Your task to perform on an android device: change the clock display to show seconds Image 0: 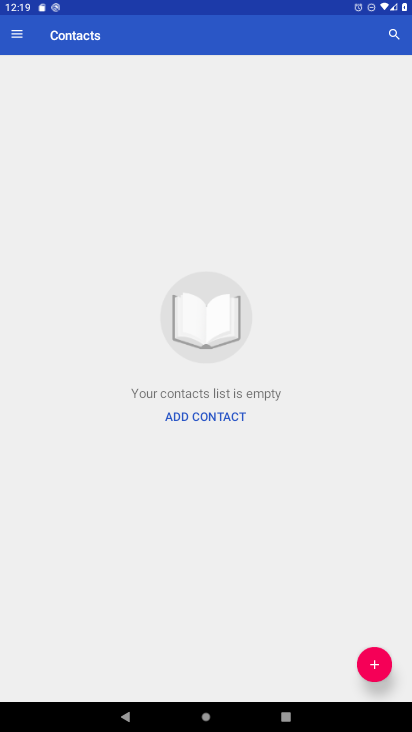
Step 0: press home button
Your task to perform on an android device: change the clock display to show seconds Image 1: 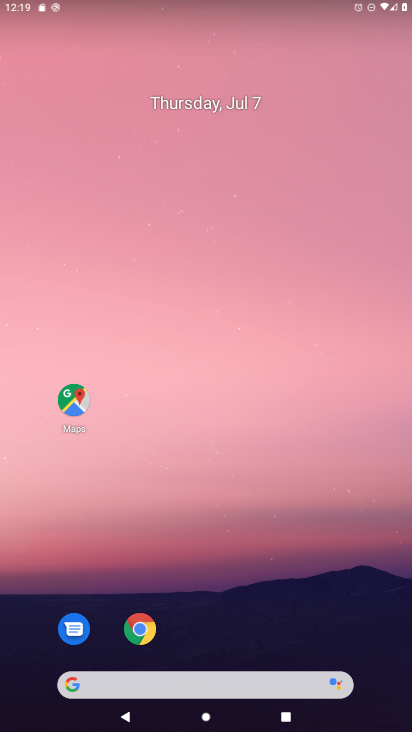
Step 1: drag from (211, 629) to (211, 169)
Your task to perform on an android device: change the clock display to show seconds Image 2: 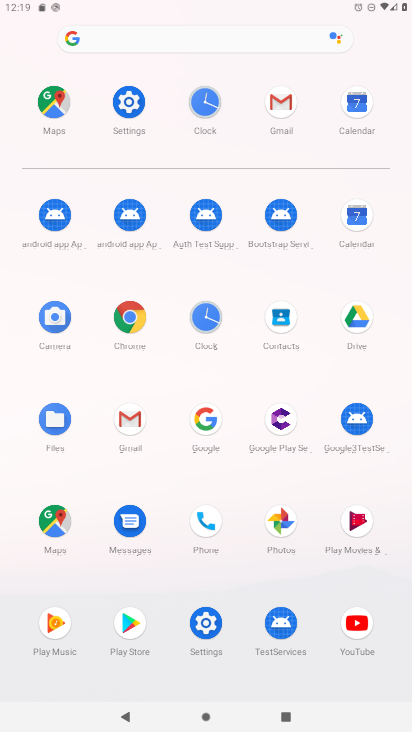
Step 2: click (199, 122)
Your task to perform on an android device: change the clock display to show seconds Image 3: 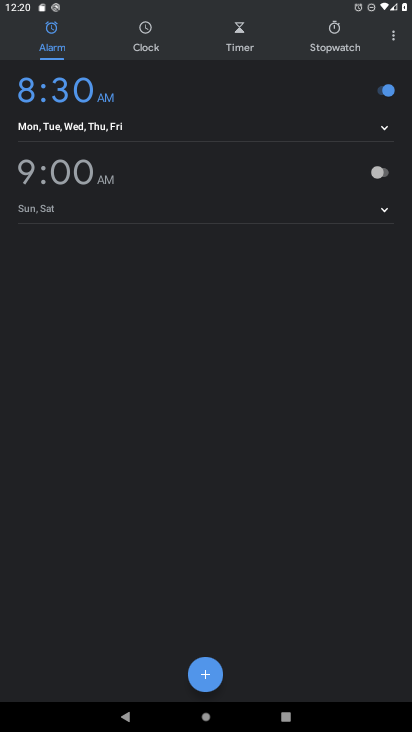
Step 3: click (390, 35)
Your task to perform on an android device: change the clock display to show seconds Image 4: 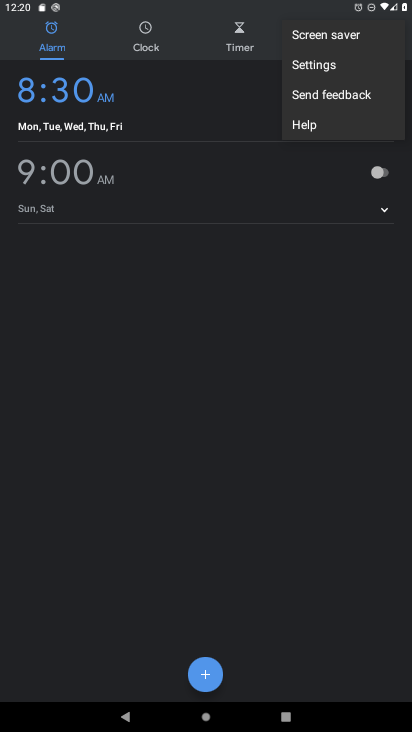
Step 4: click (329, 58)
Your task to perform on an android device: change the clock display to show seconds Image 5: 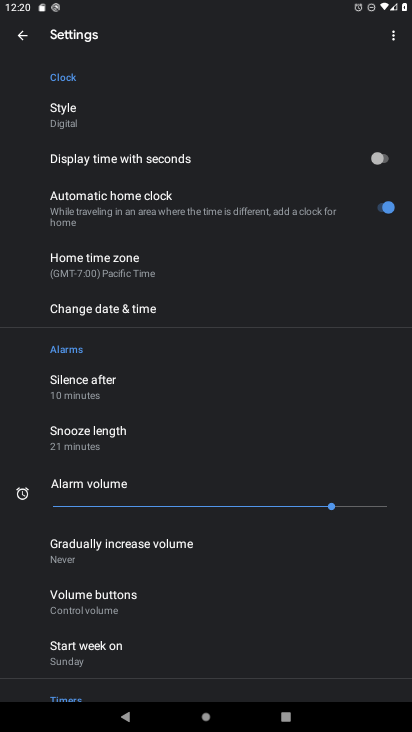
Step 5: click (383, 159)
Your task to perform on an android device: change the clock display to show seconds Image 6: 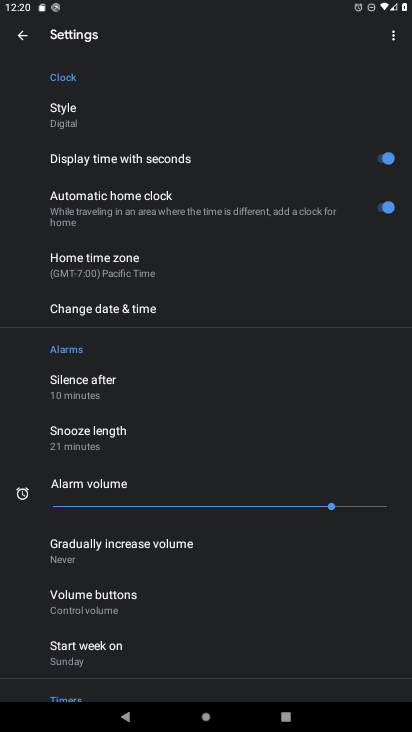
Step 6: task complete